Your task to perform on an android device: check android version Image 0: 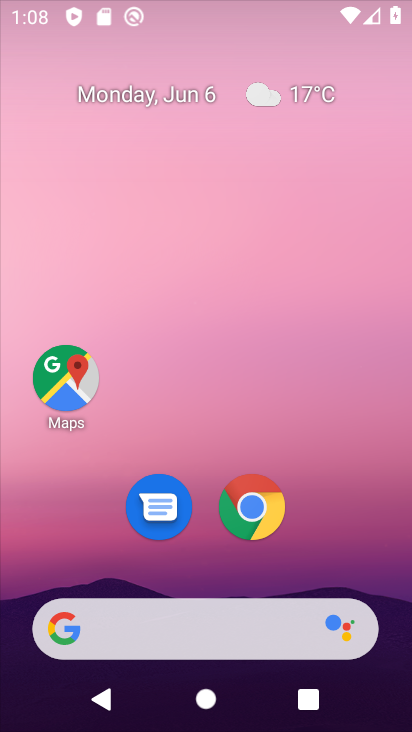
Step 0: drag from (199, 647) to (138, 178)
Your task to perform on an android device: check android version Image 1: 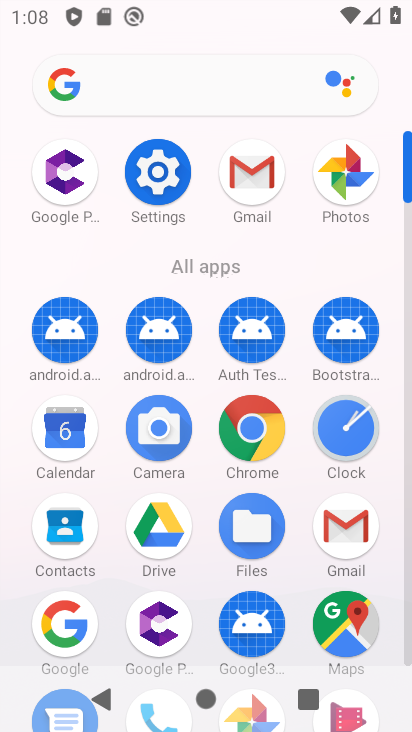
Step 1: click (145, 170)
Your task to perform on an android device: check android version Image 2: 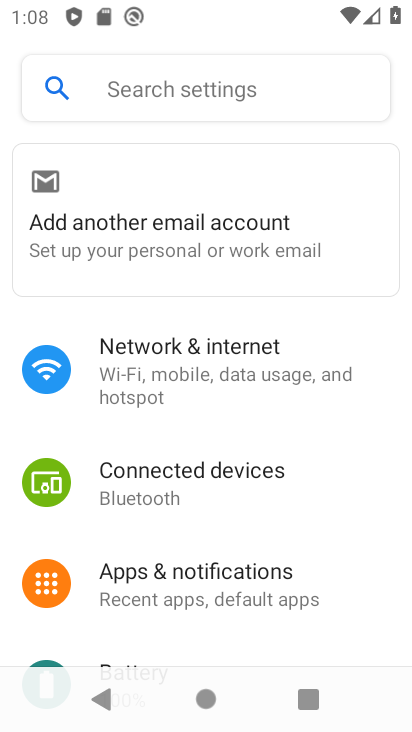
Step 2: click (113, 81)
Your task to perform on an android device: check android version Image 3: 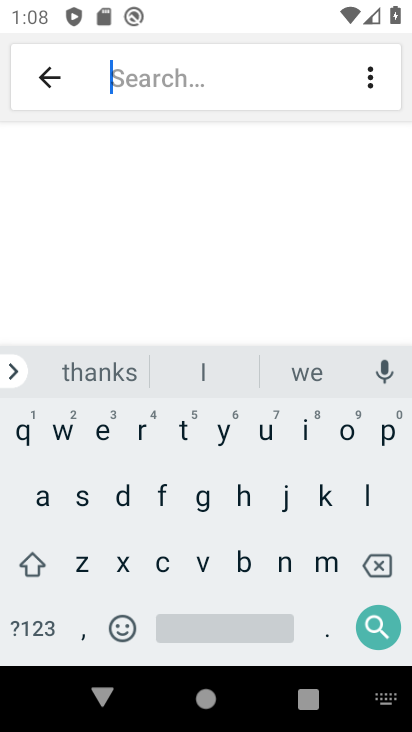
Step 3: click (34, 498)
Your task to perform on an android device: check android version Image 4: 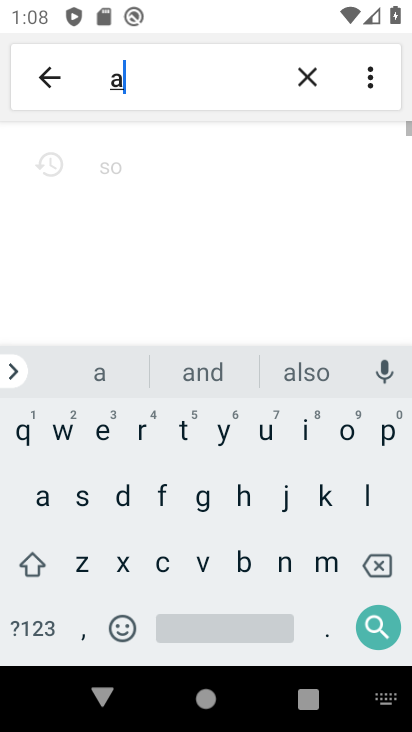
Step 4: click (294, 558)
Your task to perform on an android device: check android version Image 5: 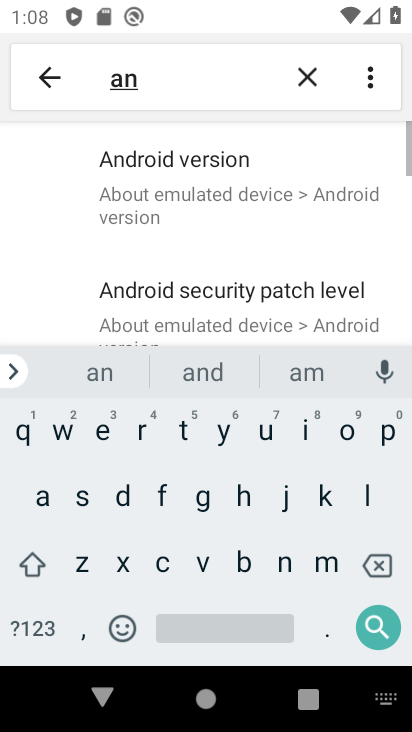
Step 5: click (156, 201)
Your task to perform on an android device: check android version Image 6: 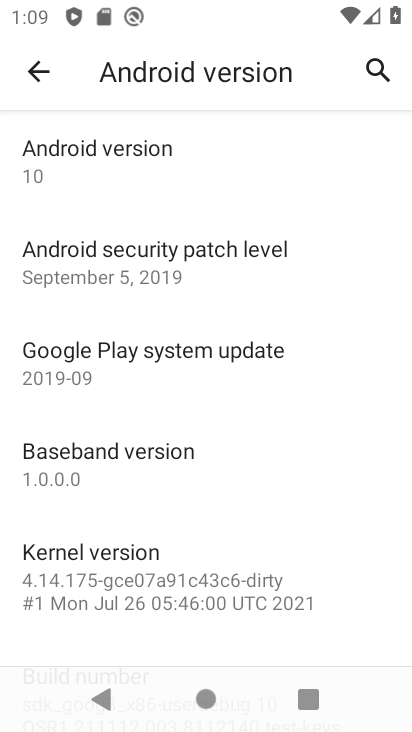
Step 6: task complete